Your task to perform on an android device: Go to Wikipedia Image 0: 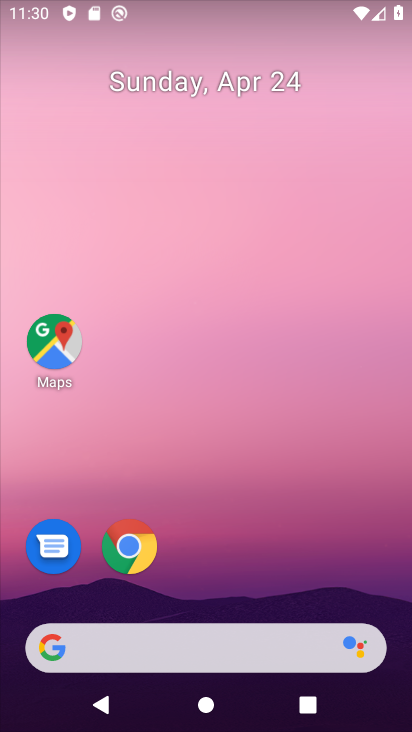
Step 0: click (174, 635)
Your task to perform on an android device: Go to Wikipedia Image 1: 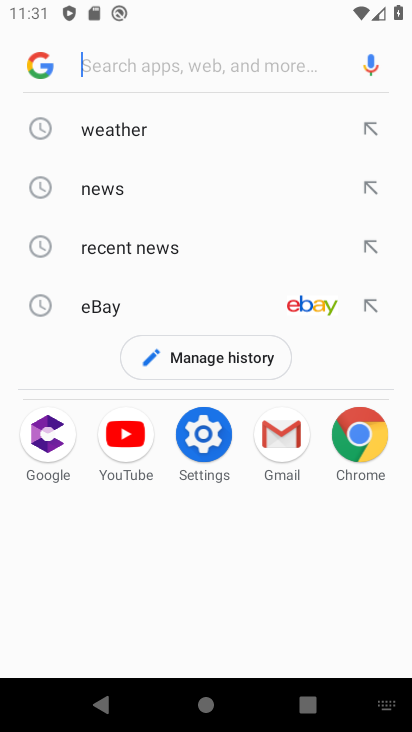
Step 1: type "Wikipedia"
Your task to perform on an android device: Go to Wikipedia Image 2: 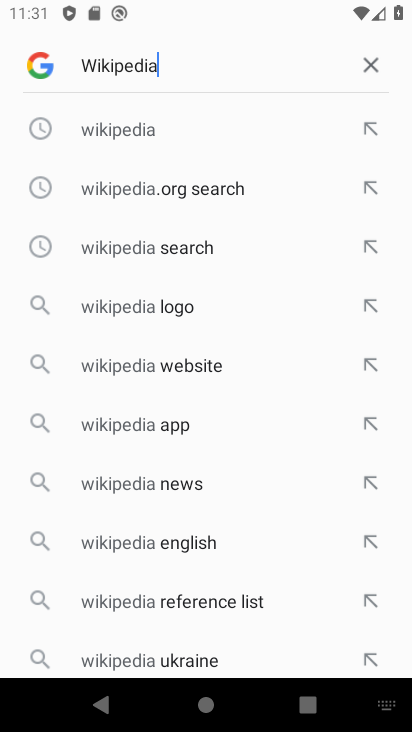
Step 2: click (155, 124)
Your task to perform on an android device: Go to Wikipedia Image 3: 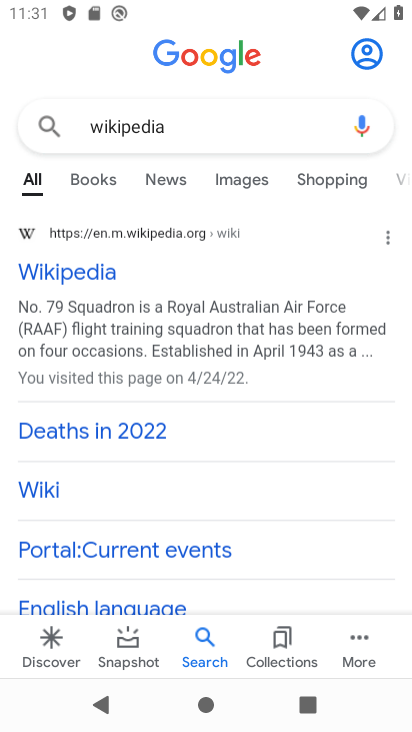
Step 3: click (85, 267)
Your task to perform on an android device: Go to Wikipedia Image 4: 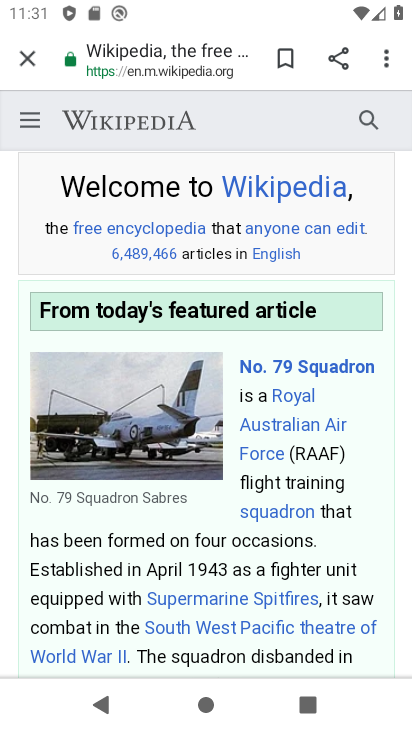
Step 4: task complete